Your task to perform on an android device: turn off location Image 0: 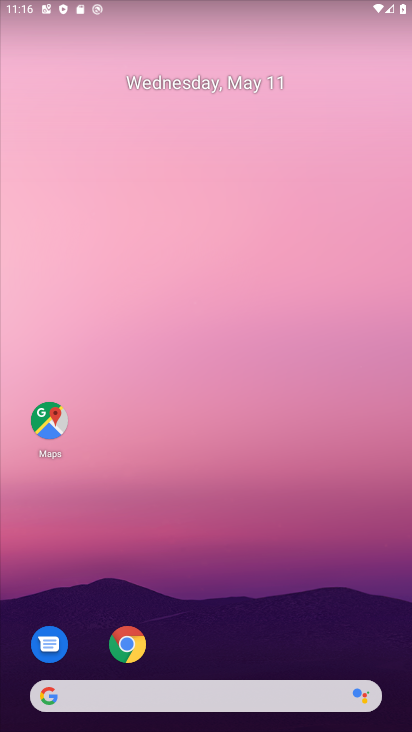
Step 0: drag from (258, 610) to (257, 167)
Your task to perform on an android device: turn off location Image 1: 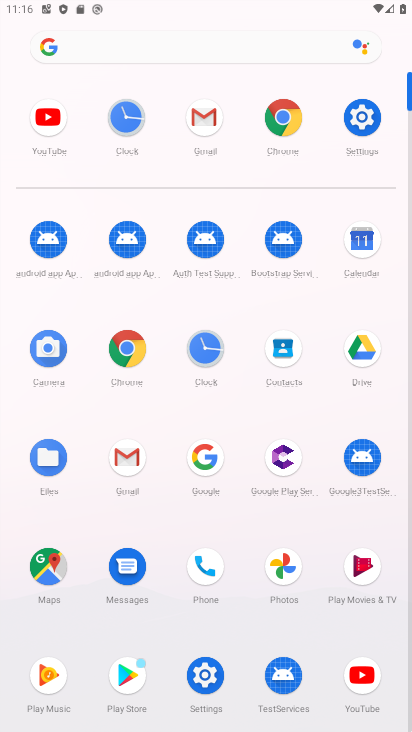
Step 1: click (370, 132)
Your task to perform on an android device: turn off location Image 2: 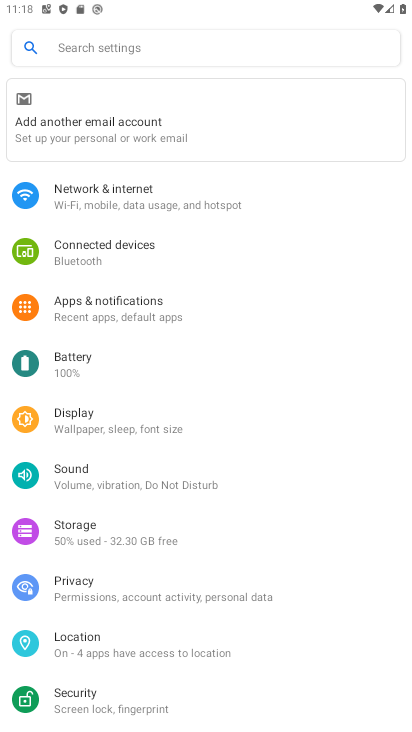
Step 2: click (152, 631)
Your task to perform on an android device: turn off location Image 3: 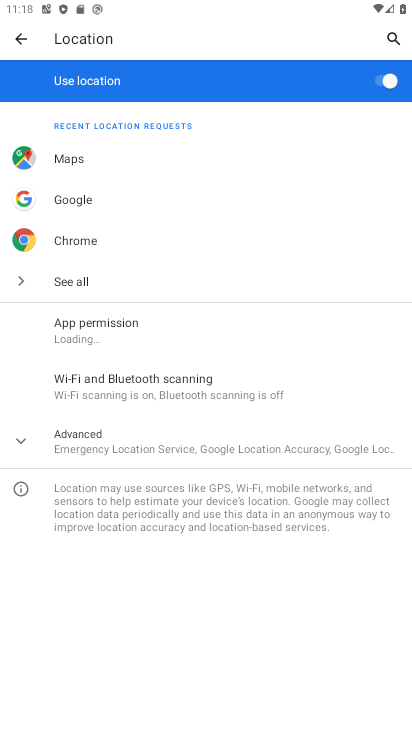
Step 3: task complete